Your task to perform on an android device: Go to notification settings Image 0: 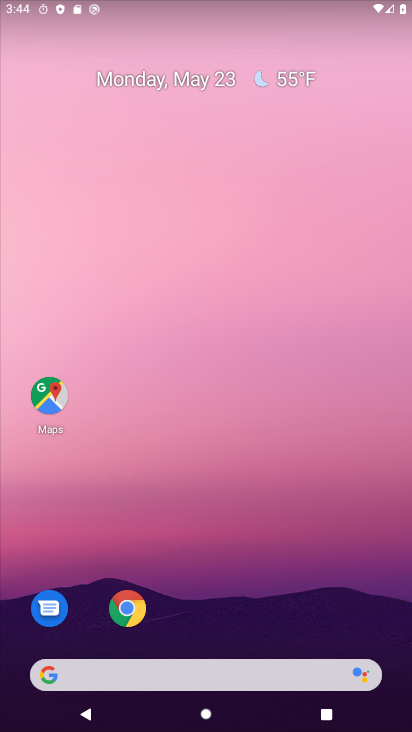
Step 0: press home button
Your task to perform on an android device: Go to notification settings Image 1: 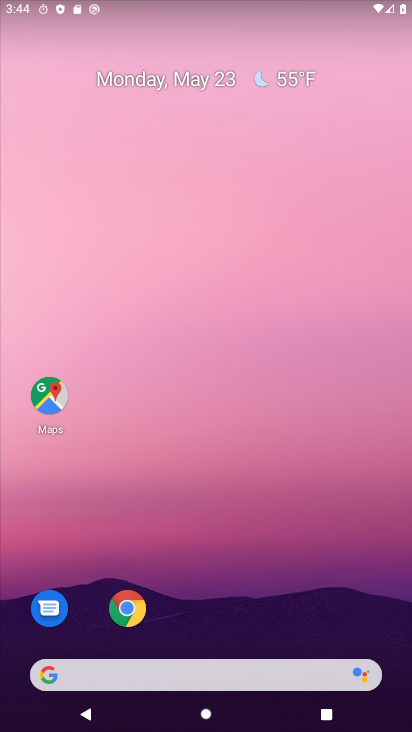
Step 1: drag from (23, 413) to (186, 134)
Your task to perform on an android device: Go to notification settings Image 2: 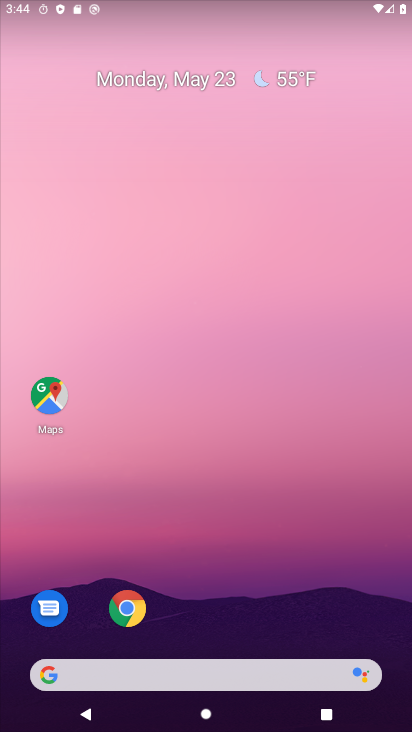
Step 2: drag from (94, 363) to (212, 89)
Your task to perform on an android device: Go to notification settings Image 3: 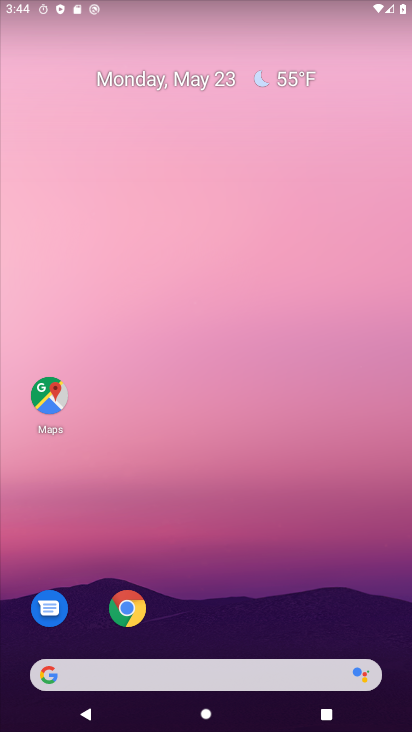
Step 3: drag from (31, 465) to (220, 118)
Your task to perform on an android device: Go to notification settings Image 4: 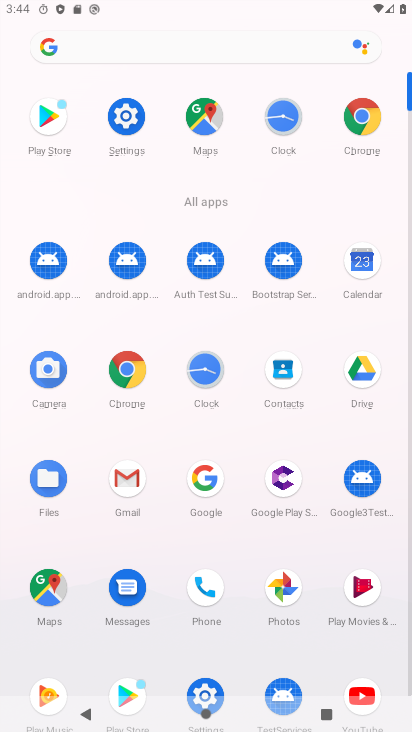
Step 4: click (129, 116)
Your task to perform on an android device: Go to notification settings Image 5: 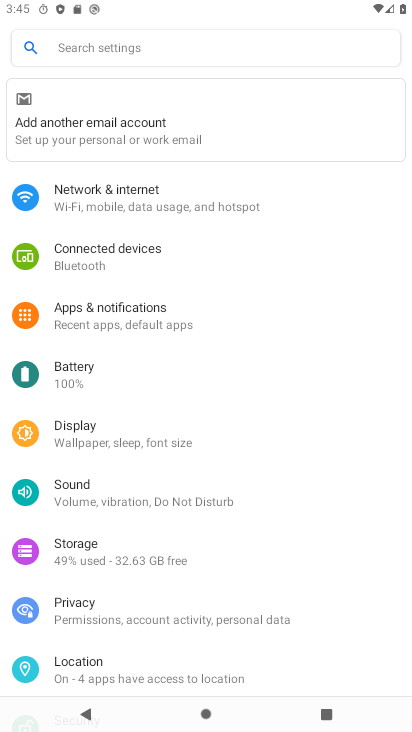
Step 5: click (75, 306)
Your task to perform on an android device: Go to notification settings Image 6: 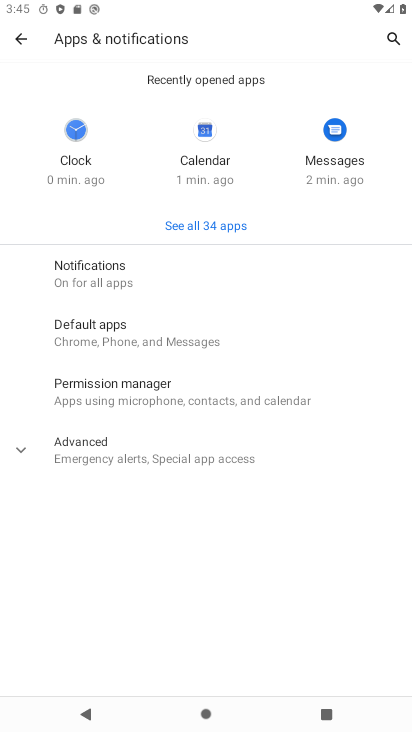
Step 6: click (132, 282)
Your task to perform on an android device: Go to notification settings Image 7: 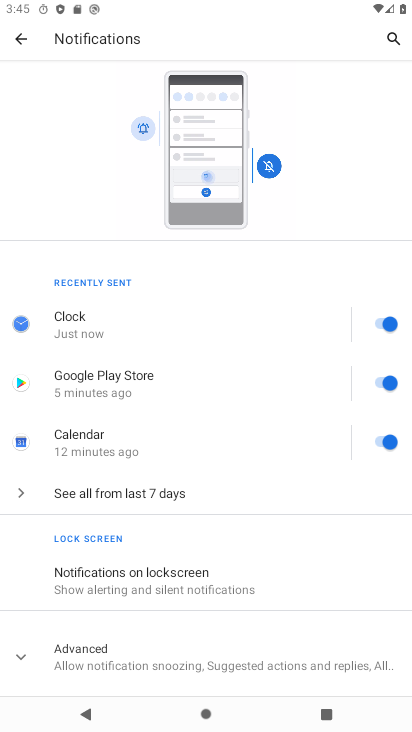
Step 7: task complete